Your task to perform on an android device: Go to Maps Image 0: 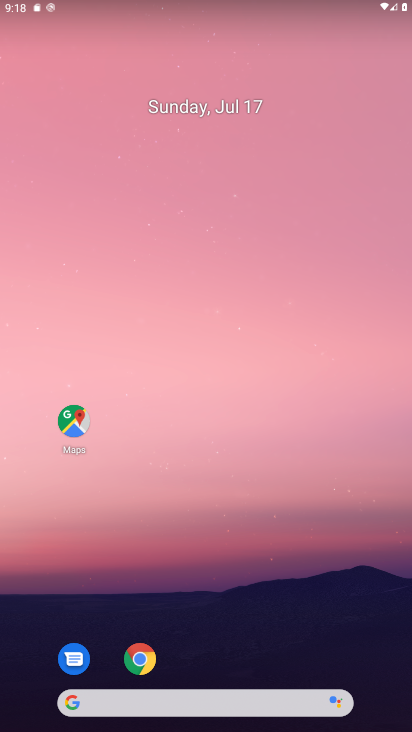
Step 0: click (70, 435)
Your task to perform on an android device: Go to Maps Image 1: 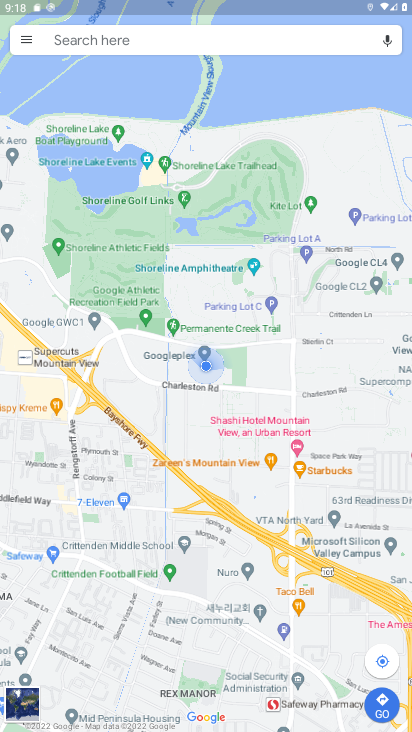
Step 1: task complete